Your task to perform on an android device: turn pop-ups off in chrome Image 0: 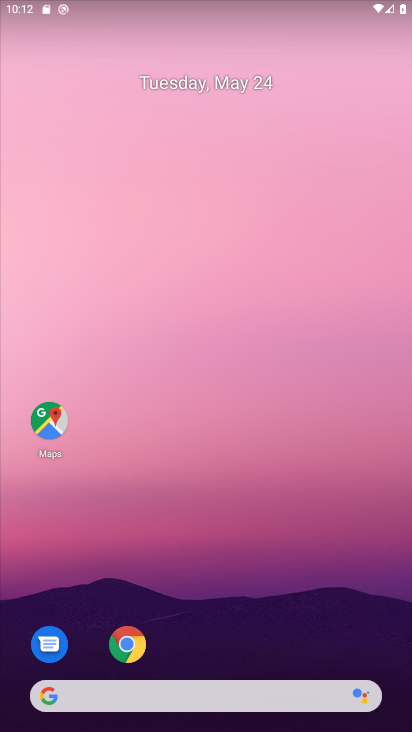
Step 0: click (125, 642)
Your task to perform on an android device: turn pop-ups off in chrome Image 1: 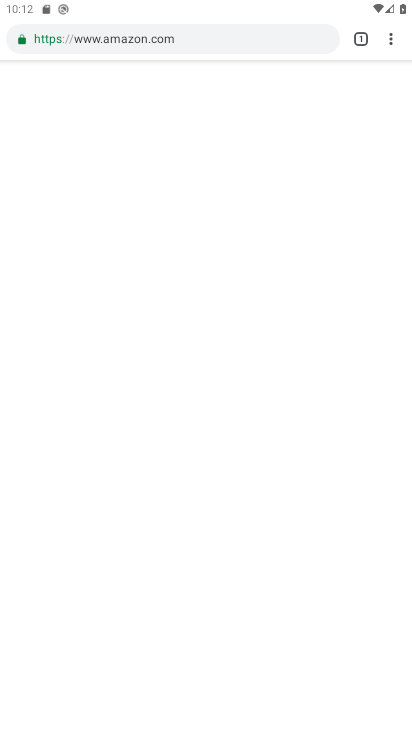
Step 1: click (391, 35)
Your task to perform on an android device: turn pop-ups off in chrome Image 2: 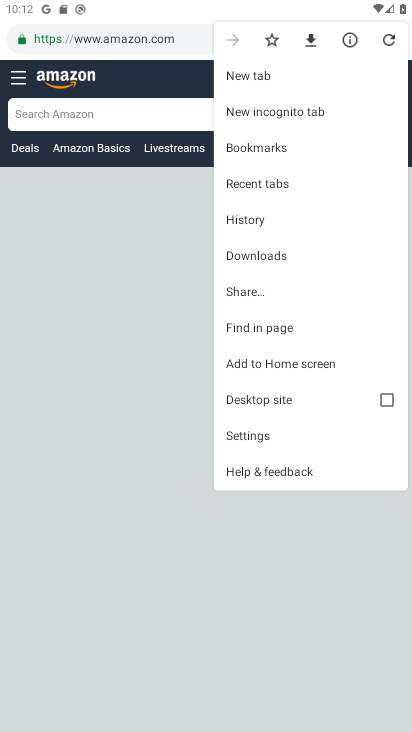
Step 2: click (265, 434)
Your task to perform on an android device: turn pop-ups off in chrome Image 3: 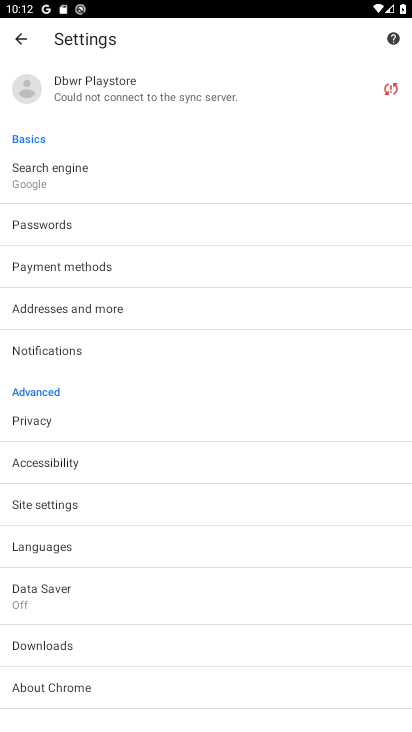
Step 3: click (67, 504)
Your task to perform on an android device: turn pop-ups off in chrome Image 4: 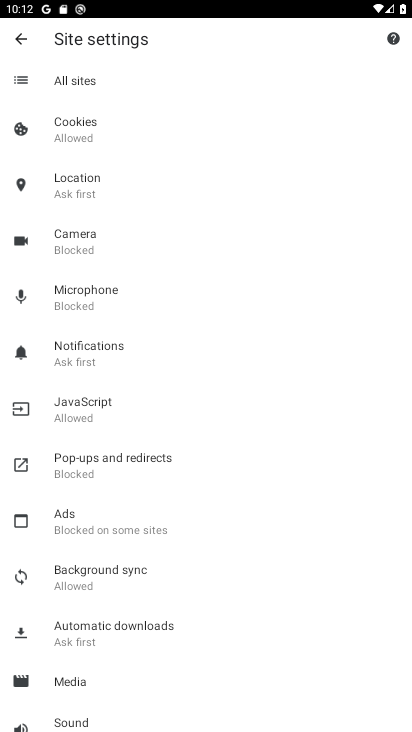
Step 4: click (94, 458)
Your task to perform on an android device: turn pop-ups off in chrome Image 5: 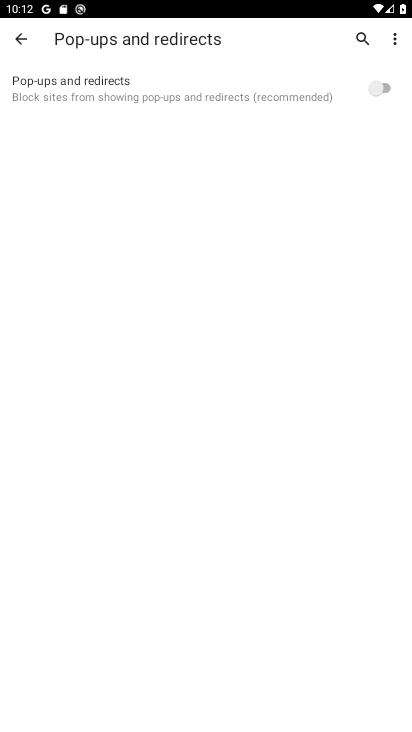
Step 5: task complete